Your task to perform on an android device: Play the last video I watched on Youtube Image 0: 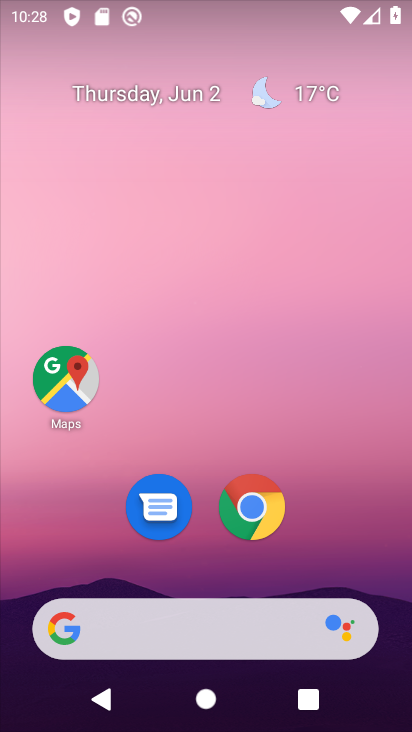
Step 0: drag from (227, 542) to (202, 23)
Your task to perform on an android device: Play the last video I watched on Youtube Image 1: 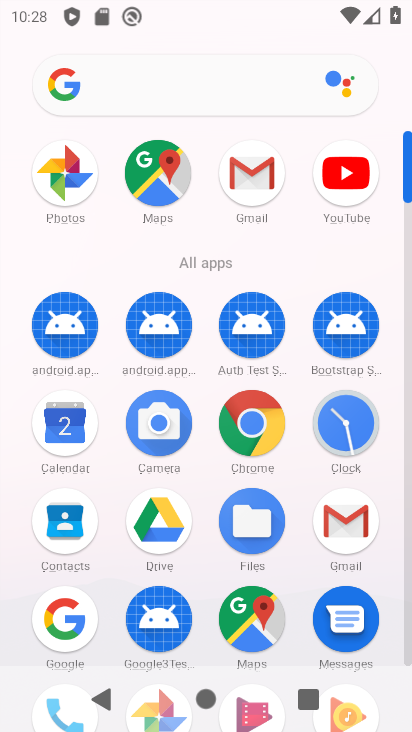
Step 1: click (351, 172)
Your task to perform on an android device: Play the last video I watched on Youtube Image 2: 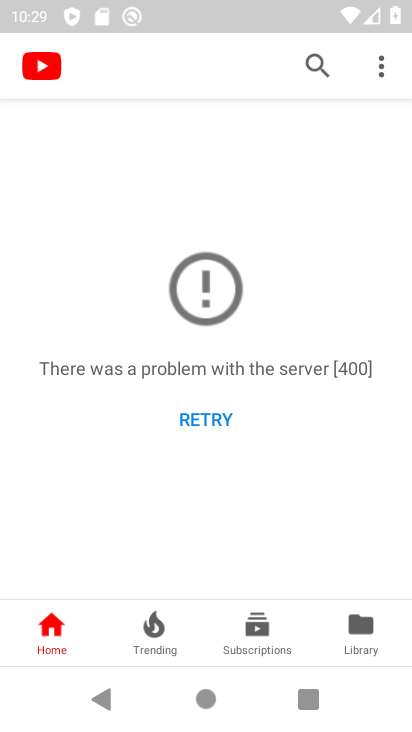
Step 2: task complete